Your task to perform on an android device: When is my next meeting? Image 0: 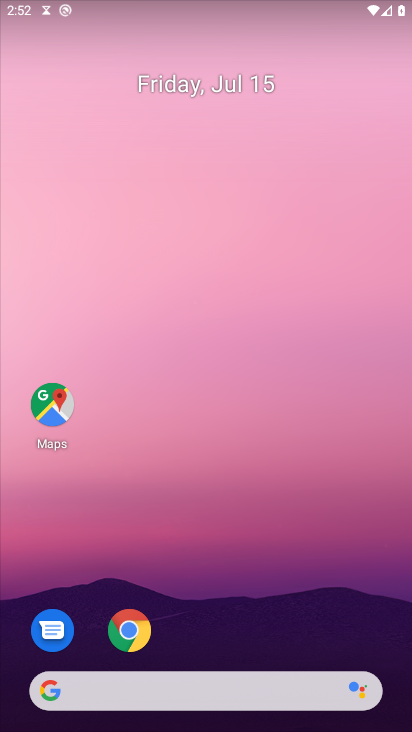
Step 0: drag from (234, 651) to (181, 2)
Your task to perform on an android device: When is my next meeting? Image 1: 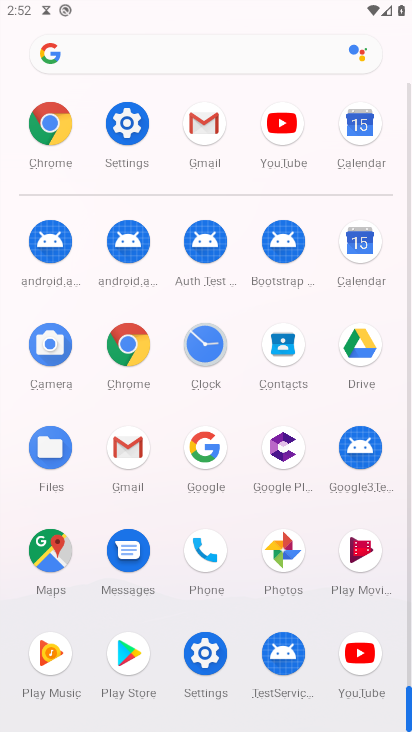
Step 1: click (363, 234)
Your task to perform on an android device: When is my next meeting? Image 2: 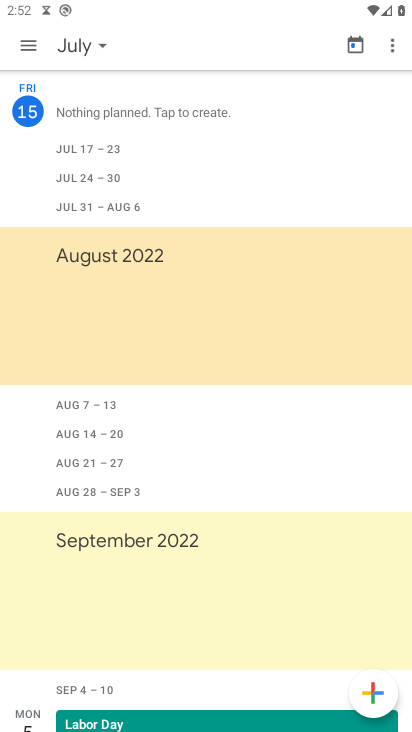
Step 2: click (26, 49)
Your task to perform on an android device: When is my next meeting? Image 3: 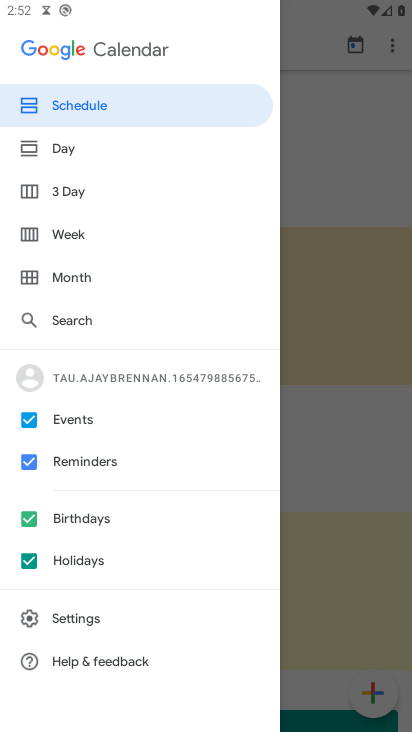
Step 3: click (56, 107)
Your task to perform on an android device: When is my next meeting? Image 4: 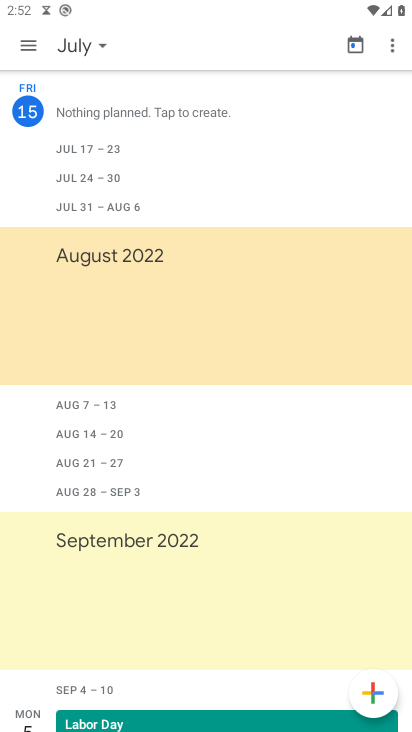
Step 4: task complete